Your task to perform on an android device: Open display settings Image 0: 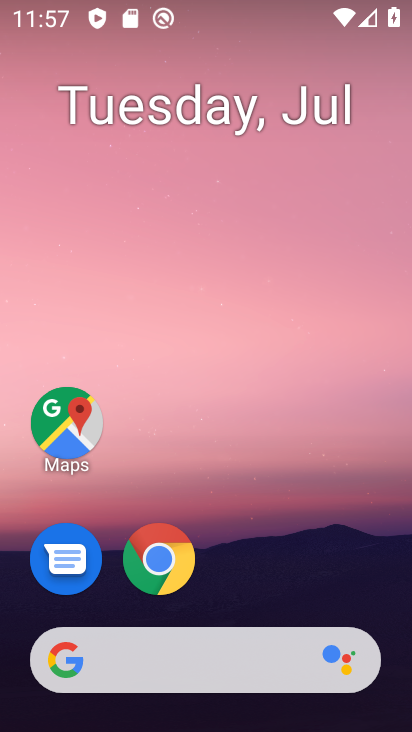
Step 0: drag from (193, 606) to (224, 7)
Your task to perform on an android device: Open display settings Image 1: 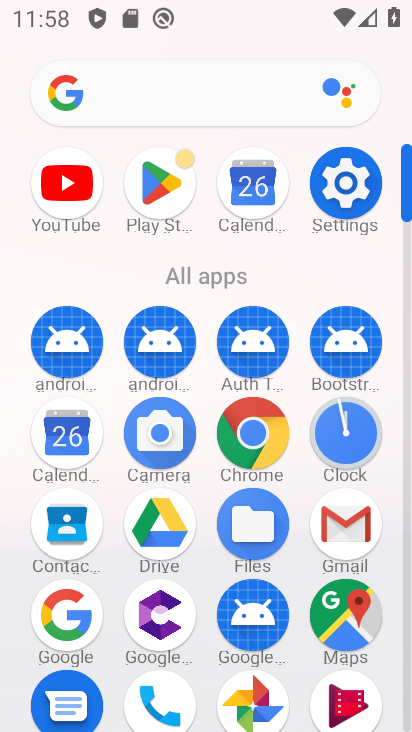
Step 1: click (337, 182)
Your task to perform on an android device: Open display settings Image 2: 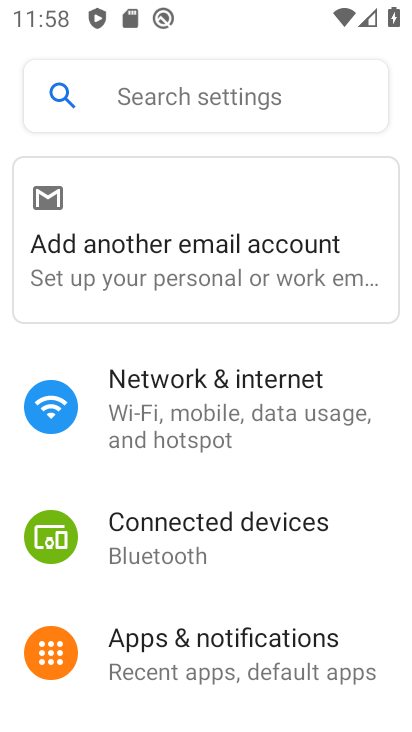
Step 2: drag from (200, 662) to (260, 219)
Your task to perform on an android device: Open display settings Image 3: 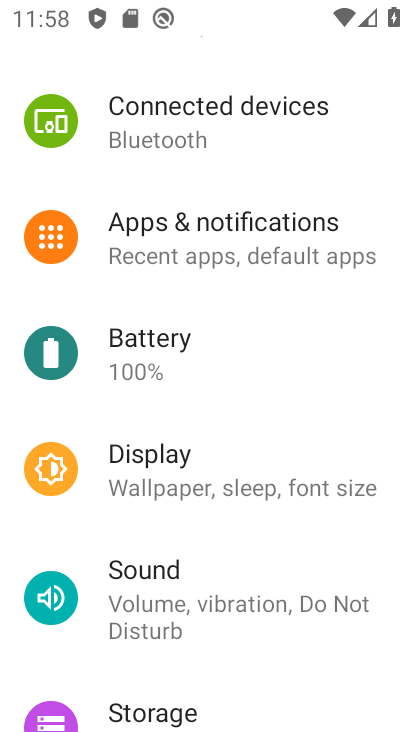
Step 3: click (218, 476)
Your task to perform on an android device: Open display settings Image 4: 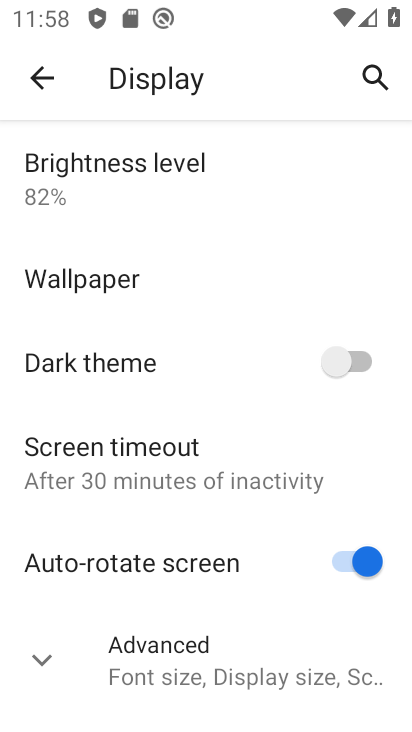
Step 4: task complete